Your task to perform on an android device: Open the calendar and show me this week's events? Image 0: 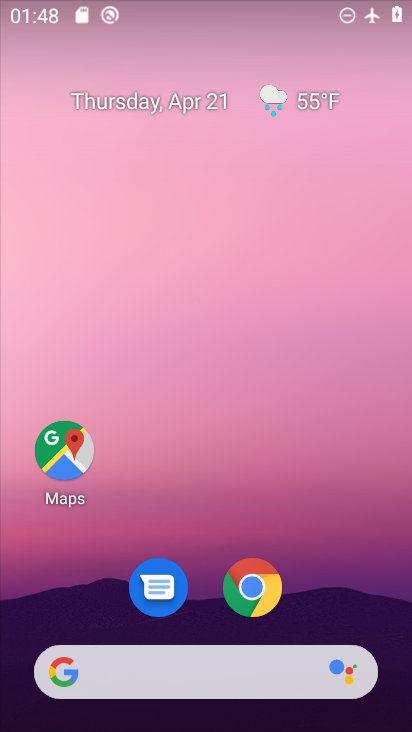
Step 0: drag from (387, 625) to (376, 283)
Your task to perform on an android device: Open the calendar and show me this week's events? Image 1: 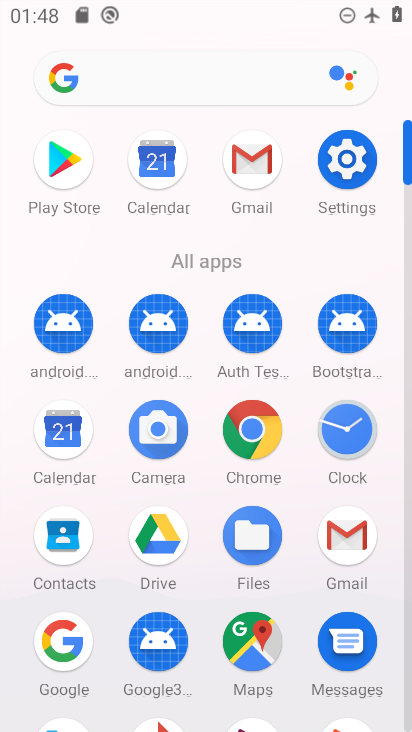
Step 1: click (409, 684)
Your task to perform on an android device: Open the calendar and show me this week's events? Image 2: 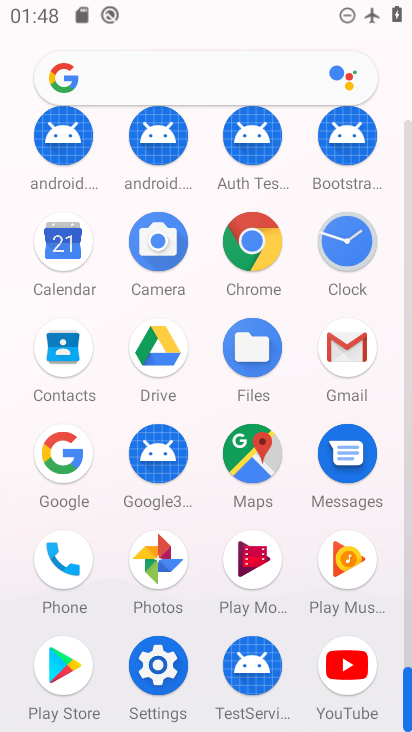
Step 2: click (63, 243)
Your task to perform on an android device: Open the calendar and show me this week's events? Image 3: 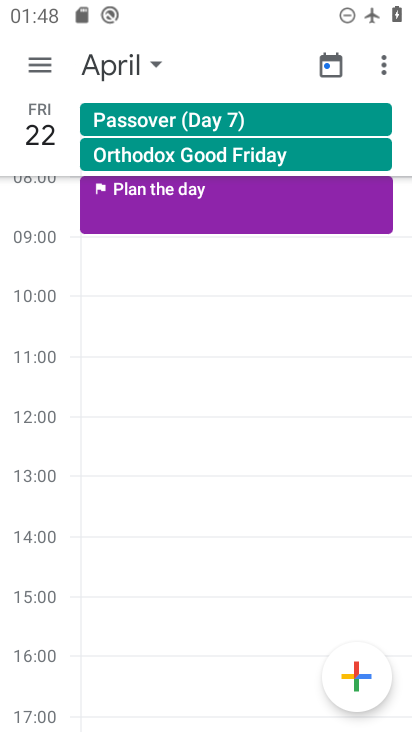
Step 3: click (40, 62)
Your task to perform on an android device: Open the calendar and show me this week's events? Image 4: 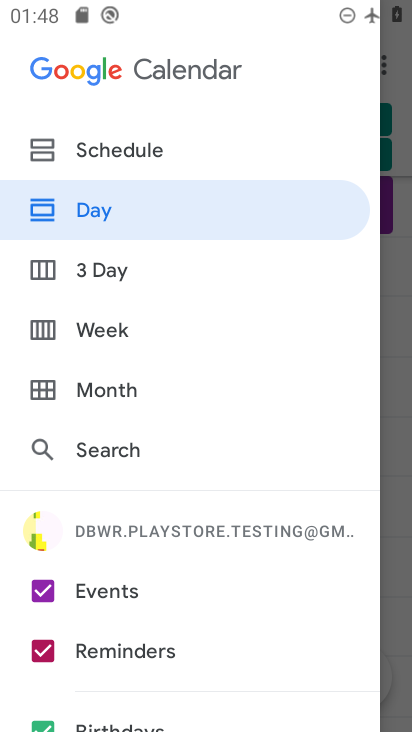
Step 4: click (90, 330)
Your task to perform on an android device: Open the calendar and show me this week's events? Image 5: 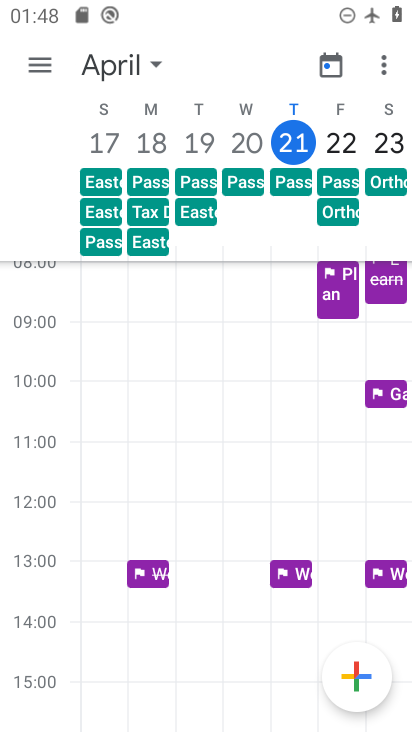
Step 5: task complete